Your task to perform on an android device: Search for the best rated TV on Target Image 0: 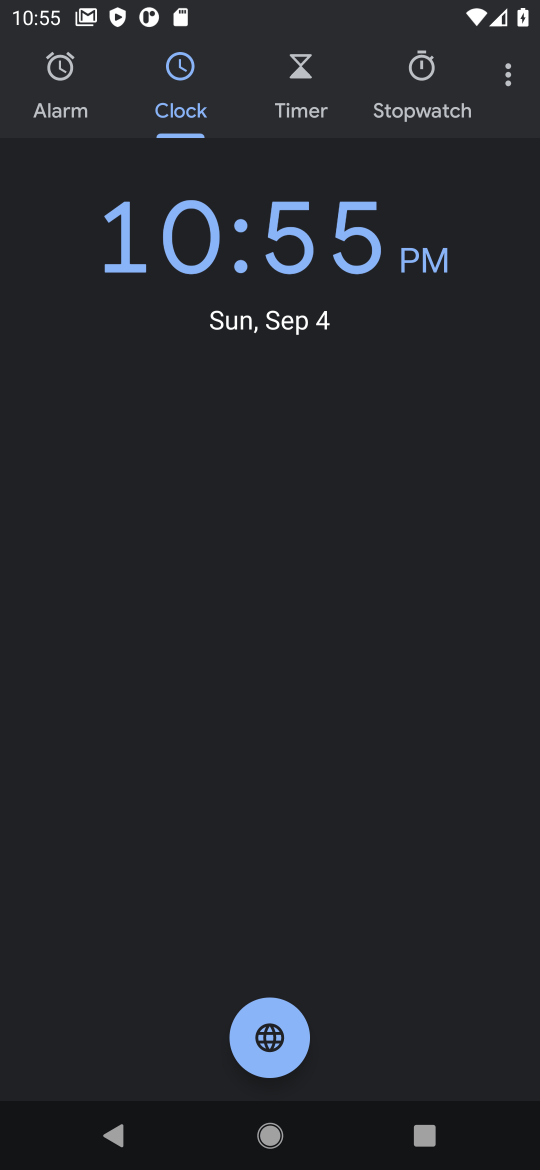
Step 0: press back button
Your task to perform on an android device: Search for the best rated TV on Target Image 1: 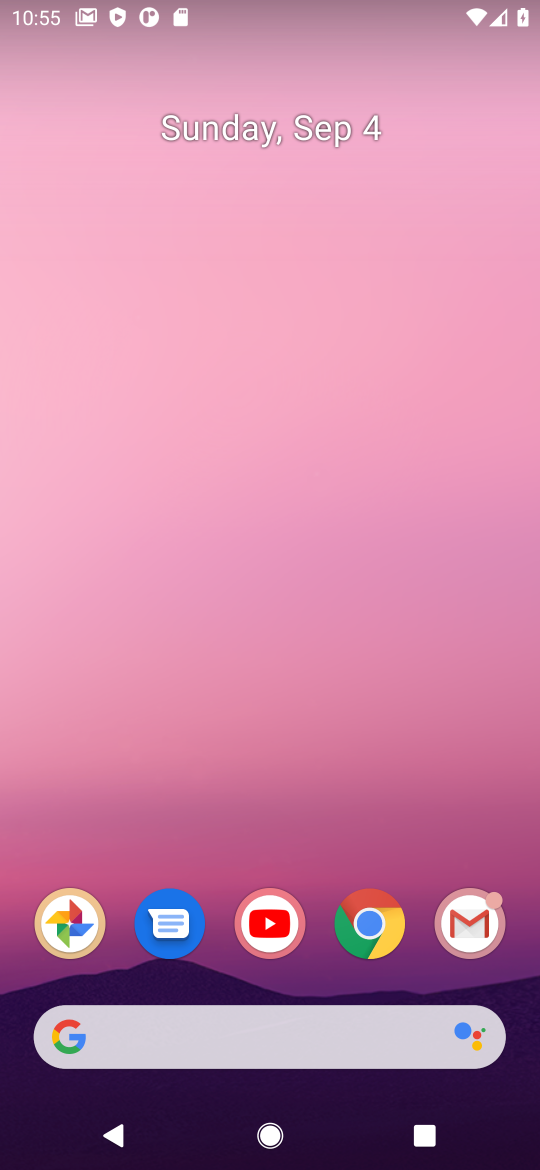
Step 1: click (378, 934)
Your task to perform on an android device: Search for the best rated TV on Target Image 2: 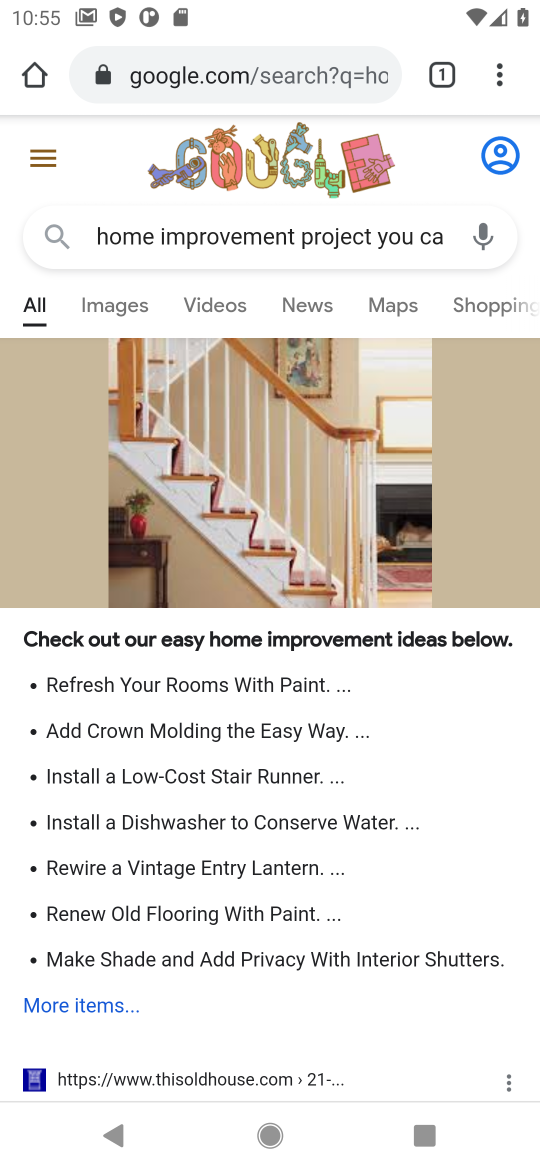
Step 2: click (306, 70)
Your task to perform on an android device: Search for the best rated TV on Target Image 3: 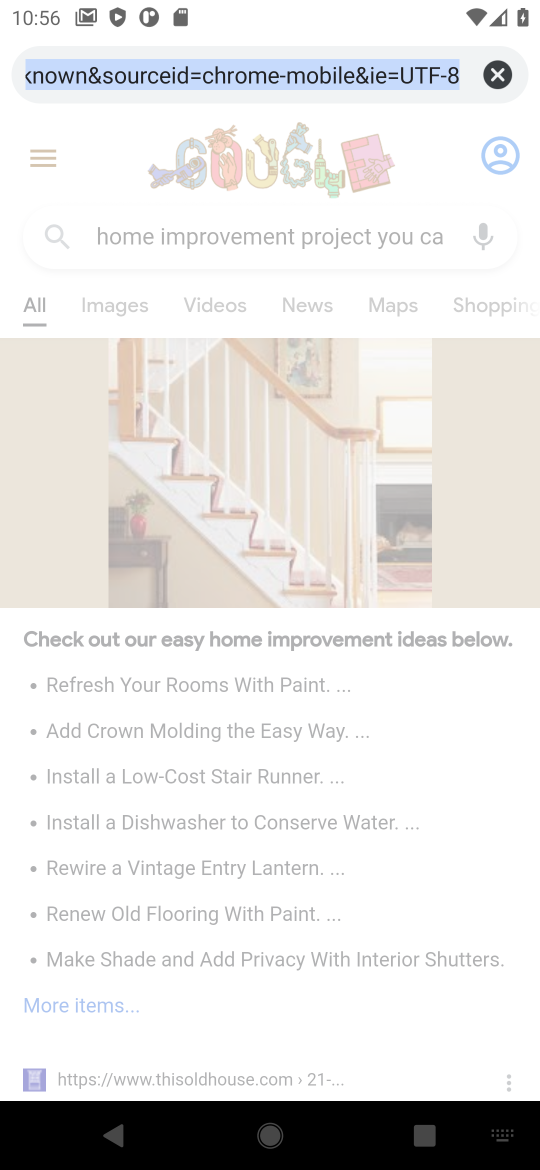
Step 3: click (497, 75)
Your task to perform on an android device: Search for the best rated TV on Target Image 4: 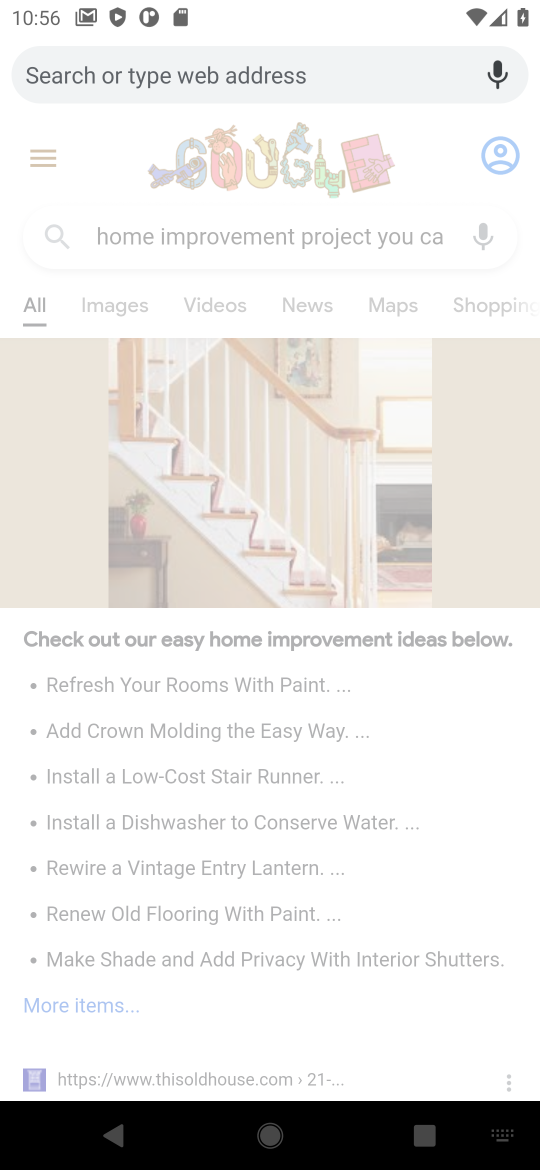
Step 4: type "the best rated TV on Target"
Your task to perform on an android device: Search for the best rated TV on Target Image 5: 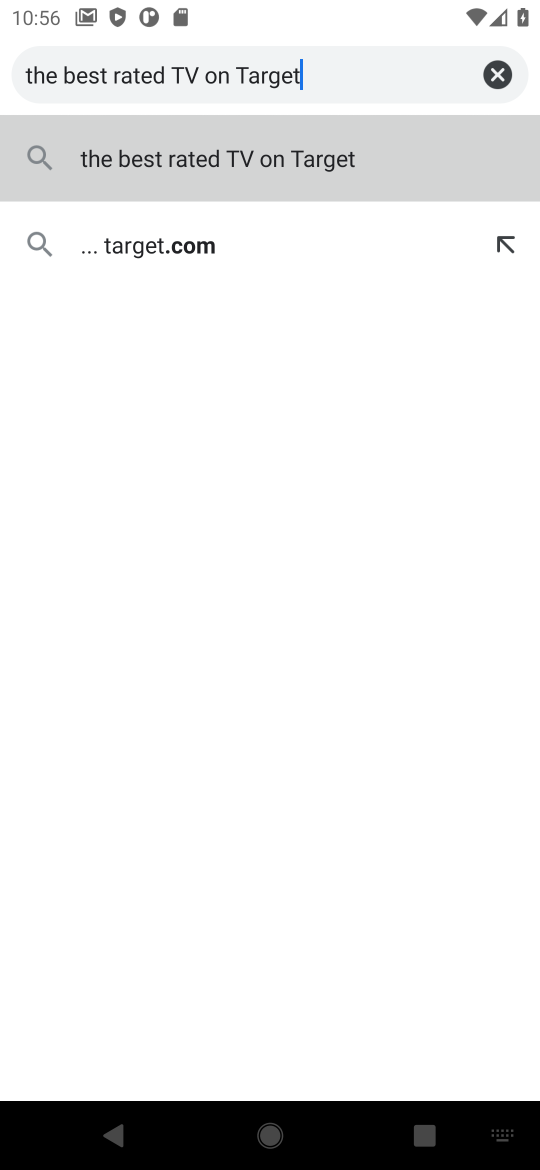
Step 5: click (300, 179)
Your task to perform on an android device: Search for the best rated TV on Target Image 6: 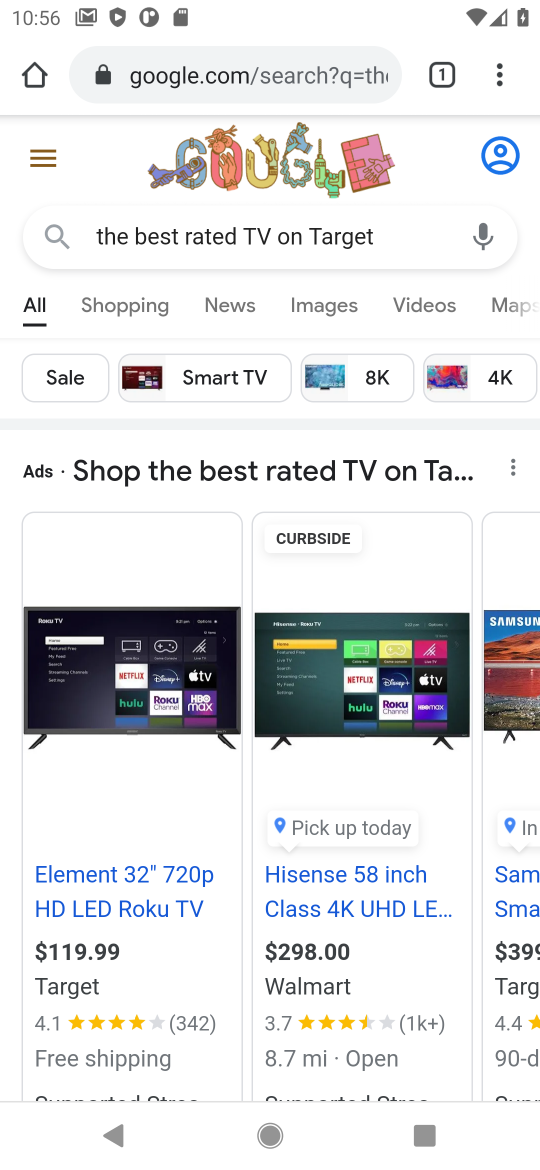
Step 6: task complete